Your task to perform on an android device: Check the news Image 0: 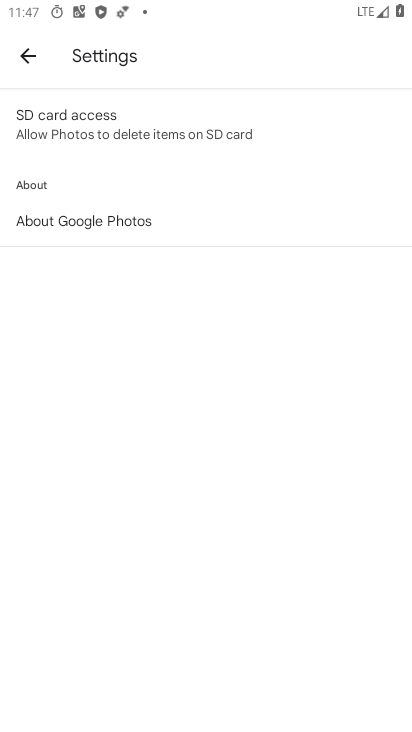
Step 0: press home button
Your task to perform on an android device: Check the news Image 1: 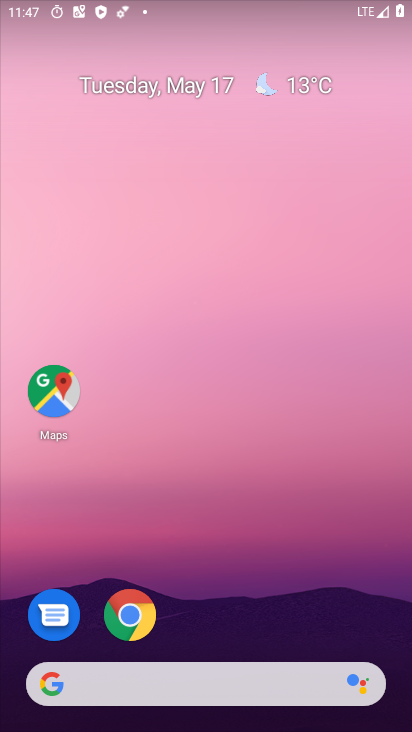
Step 1: click (58, 686)
Your task to perform on an android device: Check the news Image 2: 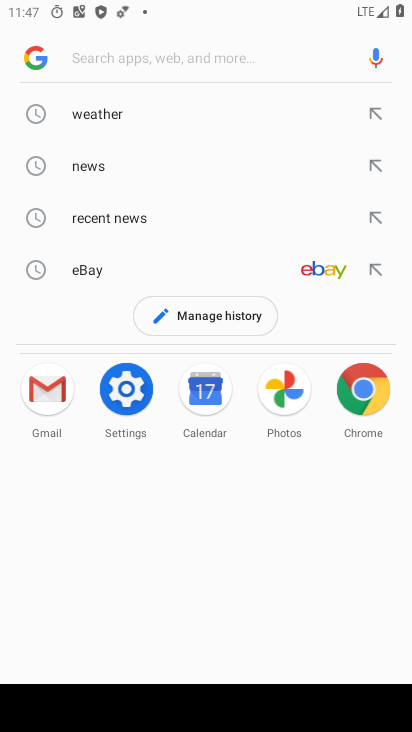
Step 2: click (86, 162)
Your task to perform on an android device: Check the news Image 3: 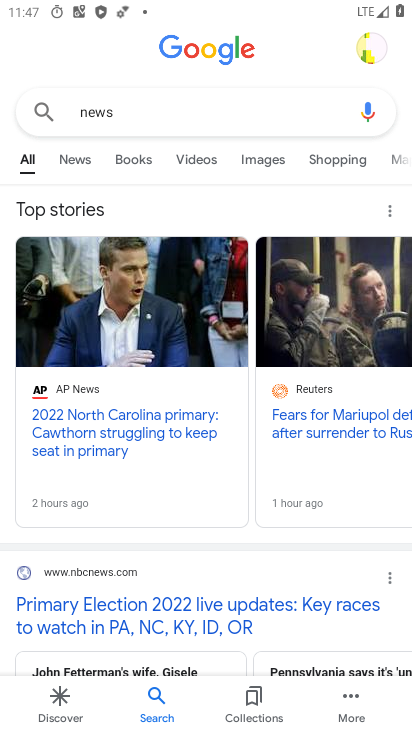
Step 3: click (72, 157)
Your task to perform on an android device: Check the news Image 4: 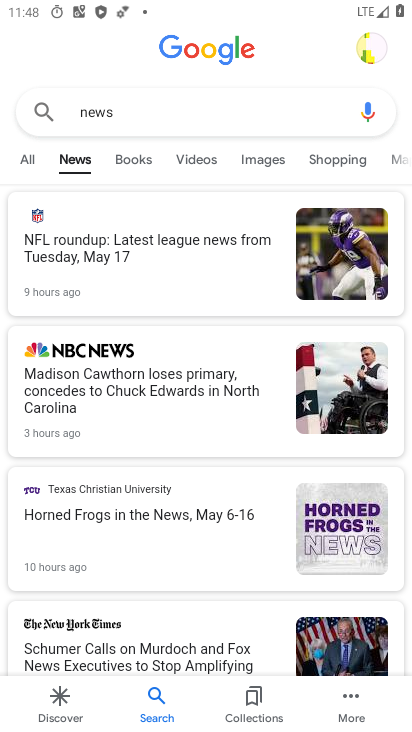
Step 4: task complete